Your task to perform on an android device: Open the map Image 0: 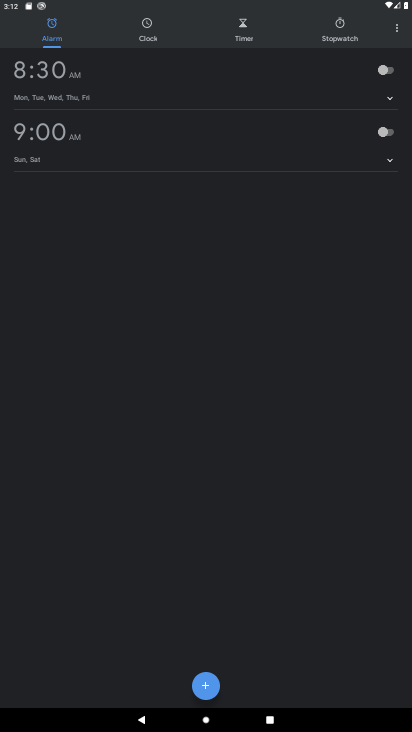
Step 0: press back button
Your task to perform on an android device: Open the map Image 1: 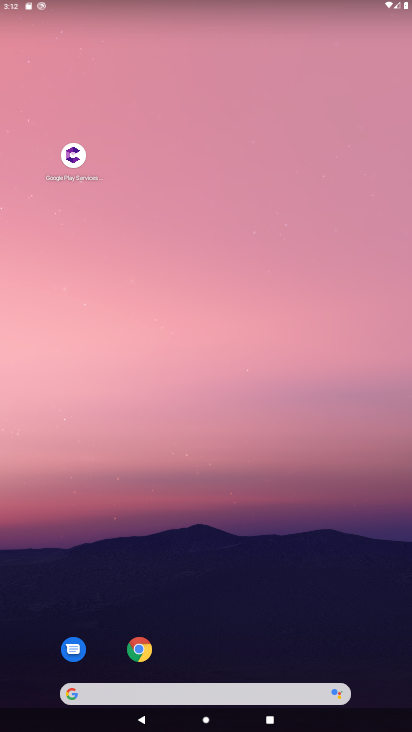
Step 1: drag from (187, 644) to (246, 77)
Your task to perform on an android device: Open the map Image 2: 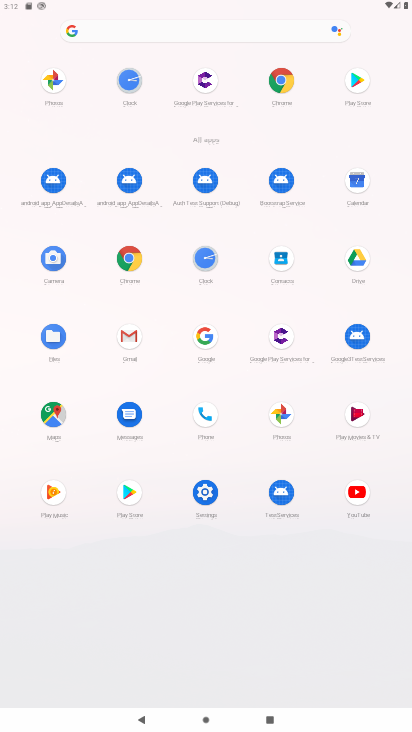
Step 2: click (58, 411)
Your task to perform on an android device: Open the map Image 3: 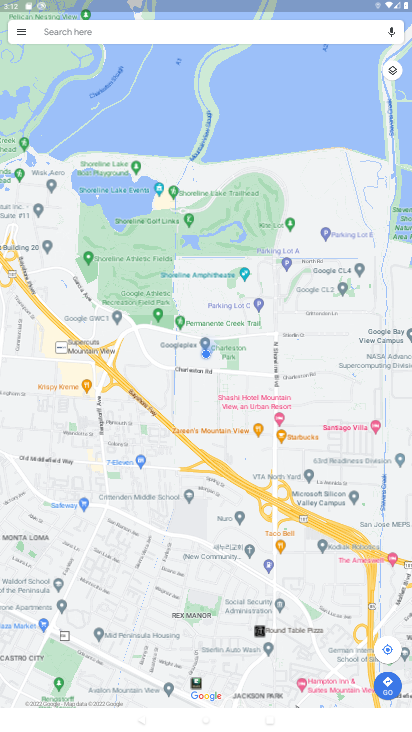
Step 3: task complete